Your task to perform on an android device: What is the news today? Image 0: 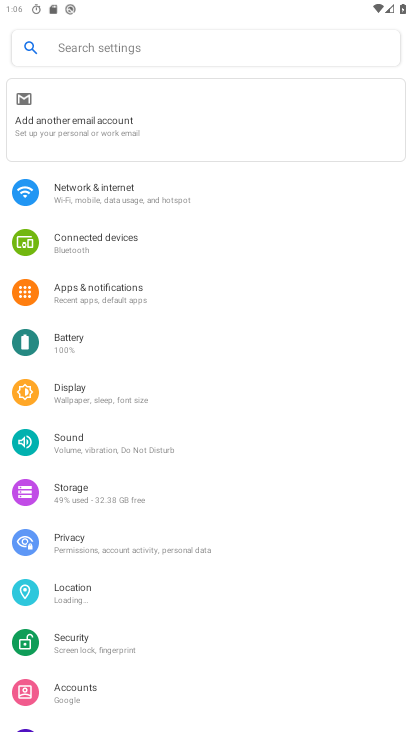
Step 0: press home button
Your task to perform on an android device: What is the news today? Image 1: 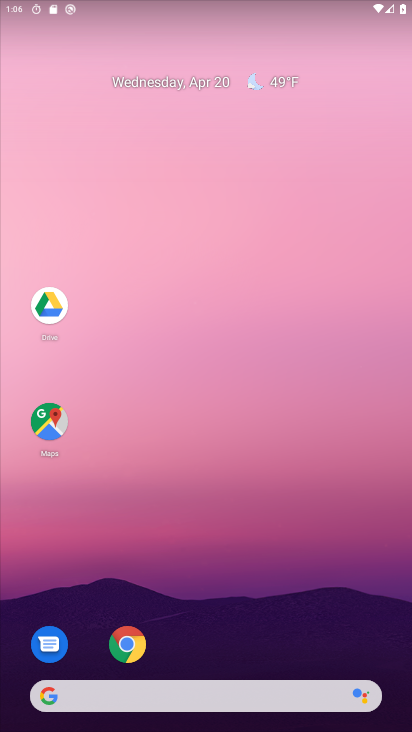
Step 1: drag from (210, 636) to (189, 96)
Your task to perform on an android device: What is the news today? Image 2: 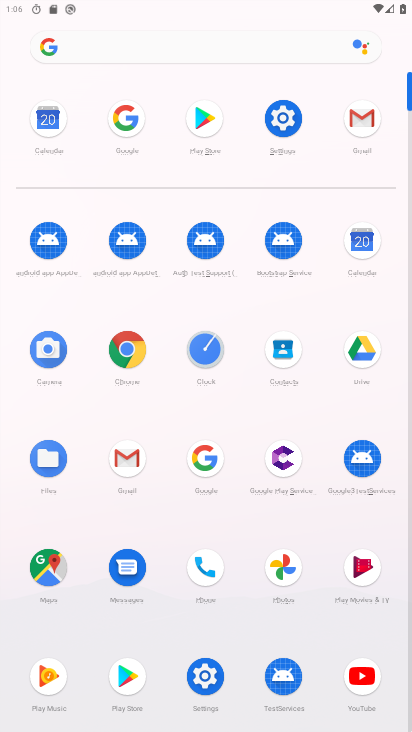
Step 2: click (209, 461)
Your task to perform on an android device: What is the news today? Image 3: 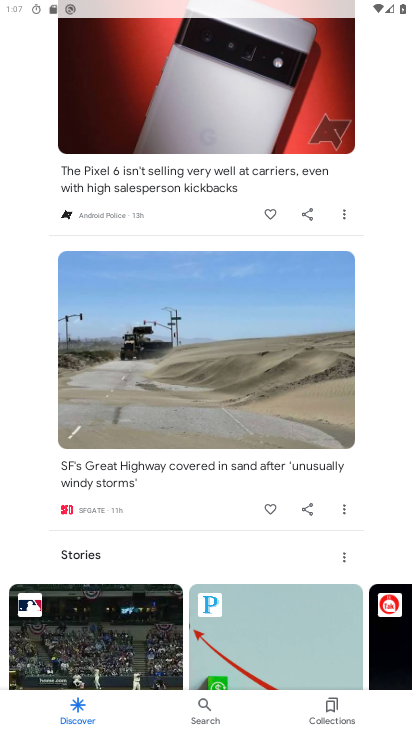
Step 3: task complete